Your task to perform on an android device: Open sound settings Image 0: 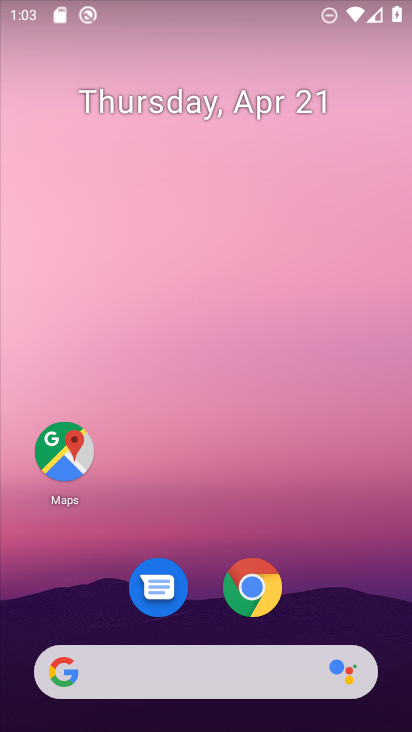
Step 0: drag from (325, 570) to (303, 81)
Your task to perform on an android device: Open sound settings Image 1: 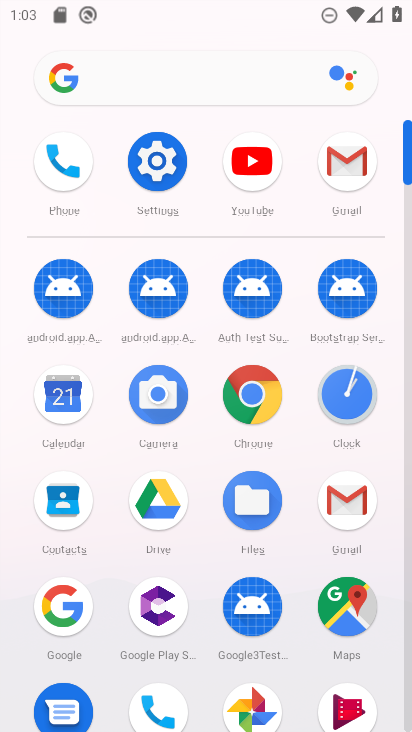
Step 1: click (167, 156)
Your task to perform on an android device: Open sound settings Image 2: 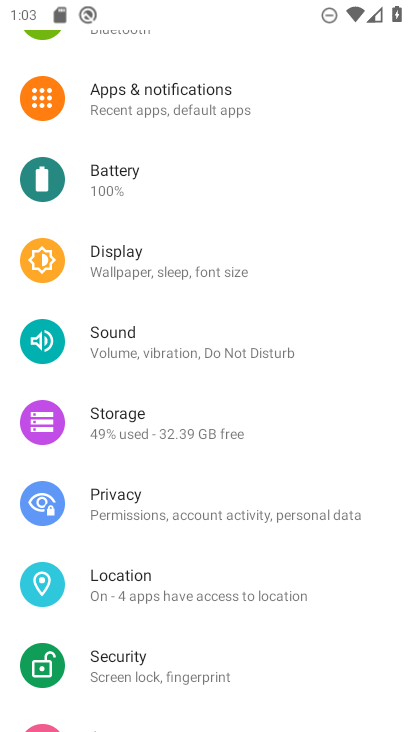
Step 2: click (117, 335)
Your task to perform on an android device: Open sound settings Image 3: 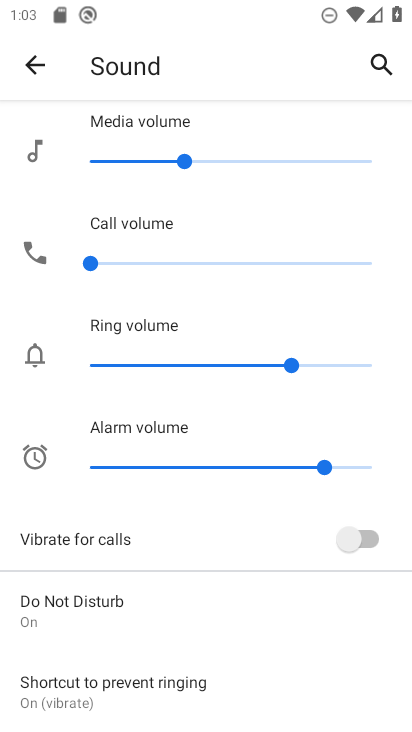
Step 3: task complete